Your task to perform on an android device: Open the web browser Image 0: 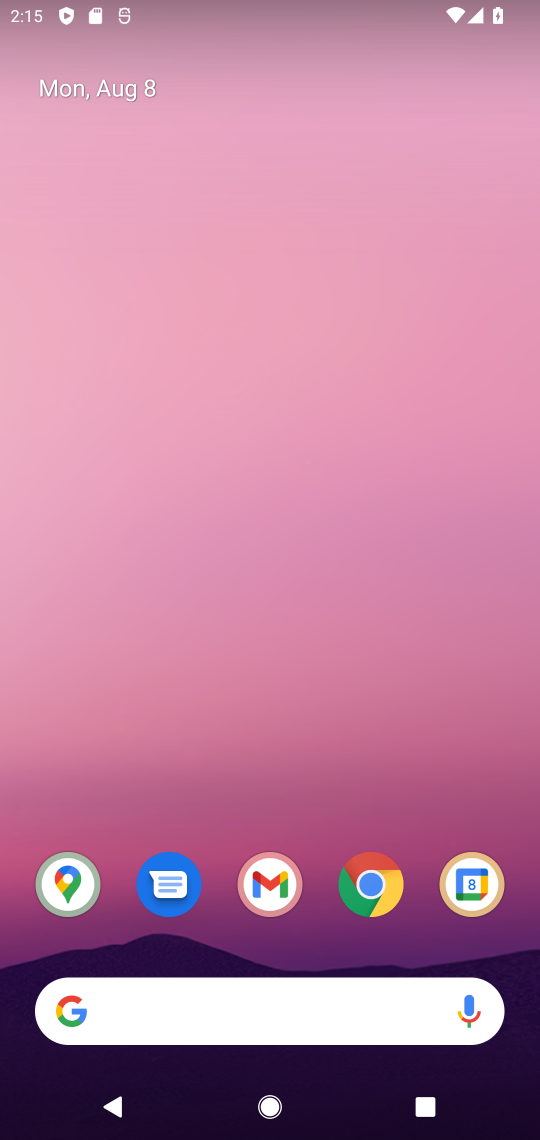
Step 0: click (372, 889)
Your task to perform on an android device: Open the web browser Image 1: 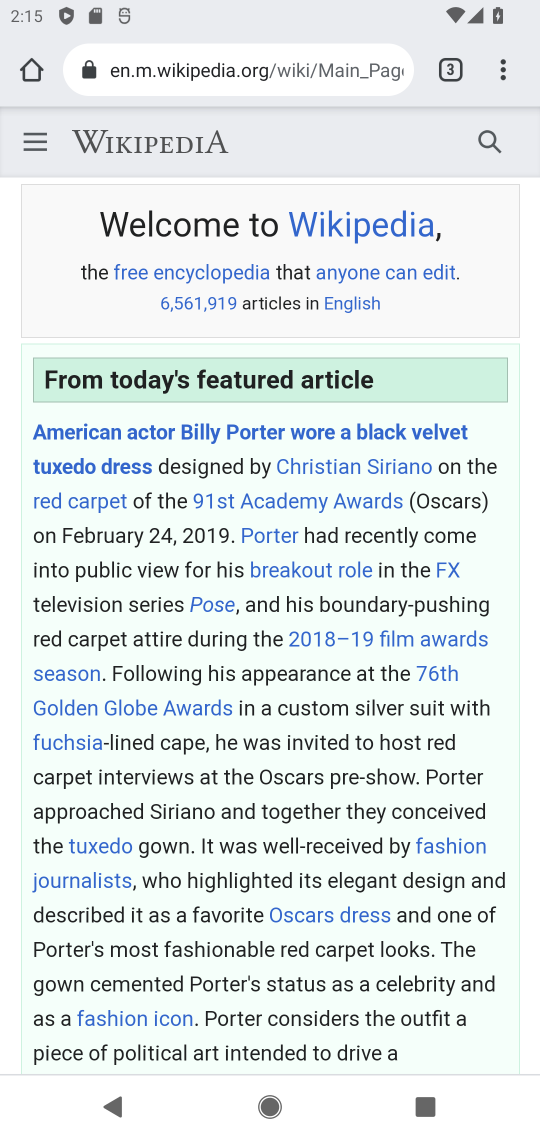
Step 1: click (496, 70)
Your task to perform on an android device: Open the web browser Image 2: 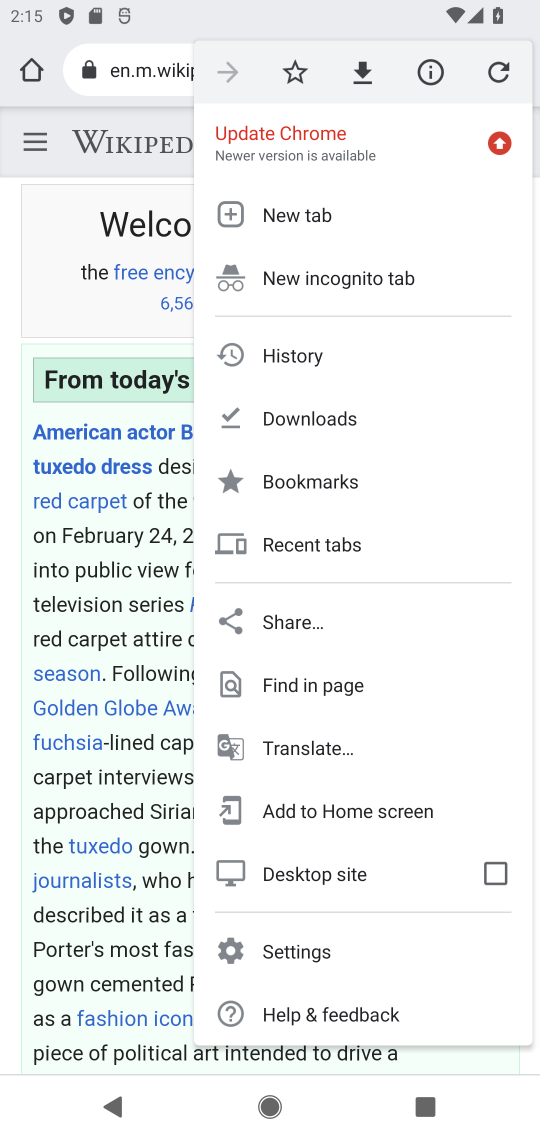
Step 2: click (296, 221)
Your task to perform on an android device: Open the web browser Image 3: 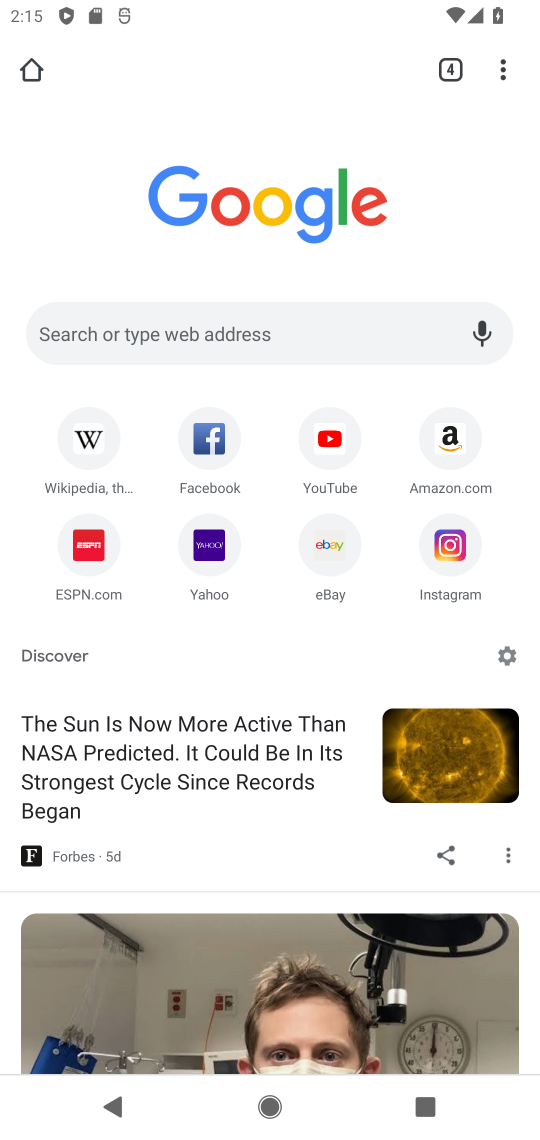
Step 3: task complete